Your task to perform on an android device: Turn off the flashlight Image 0: 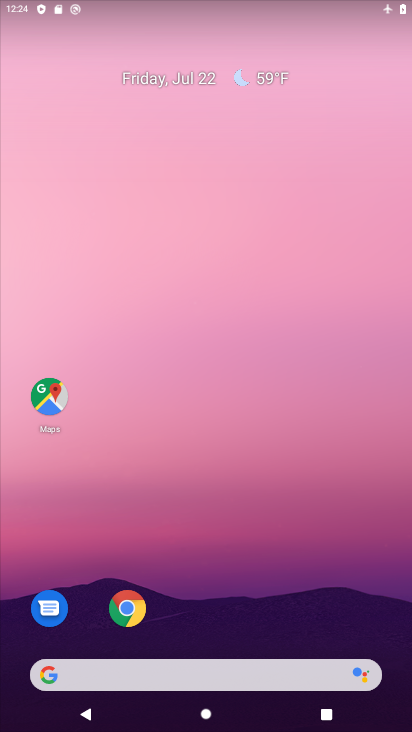
Step 0: drag from (203, 316) to (207, 137)
Your task to perform on an android device: Turn off the flashlight Image 1: 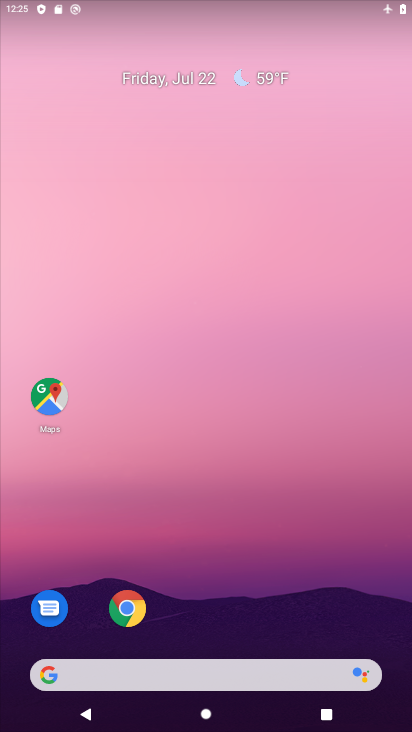
Step 1: drag from (236, 633) to (226, 15)
Your task to perform on an android device: Turn off the flashlight Image 2: 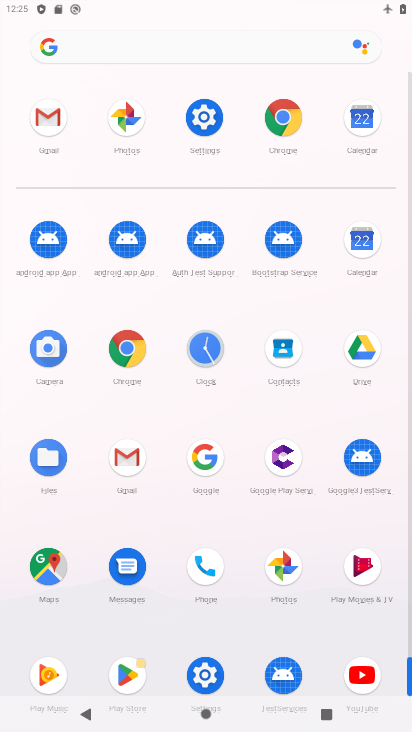
Step 2: click (204, 138)
Your task to perform on an android device: Turn off the flashlight Image 3: 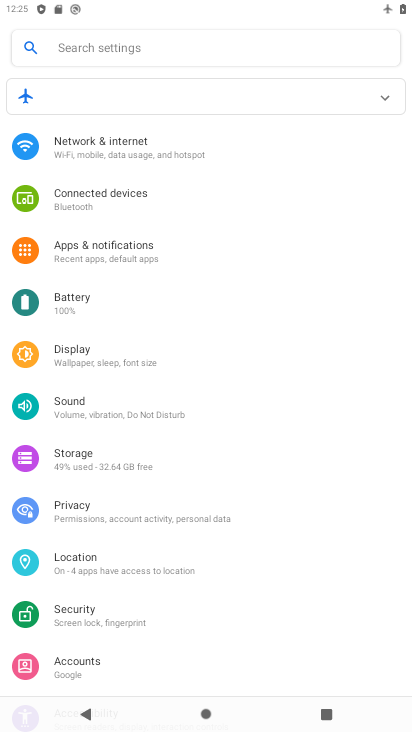
Step 3: click (192, 52)
Your task to perform on an android device: Turn off the flashlight Image 4: 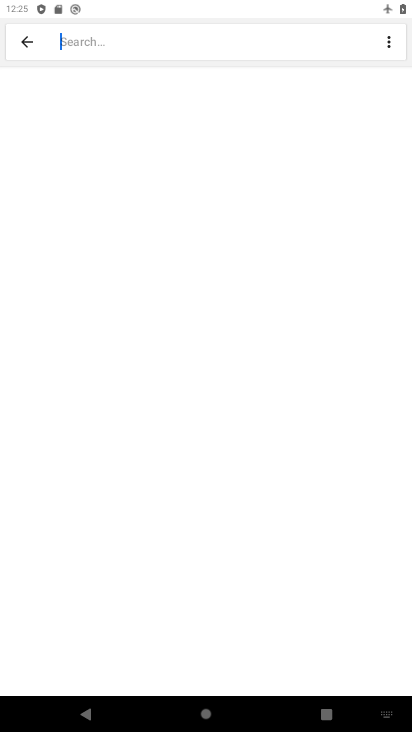
Step 4: type "flashlight"
Your task to perform on an android device: Turn off the flashlight Image 5: 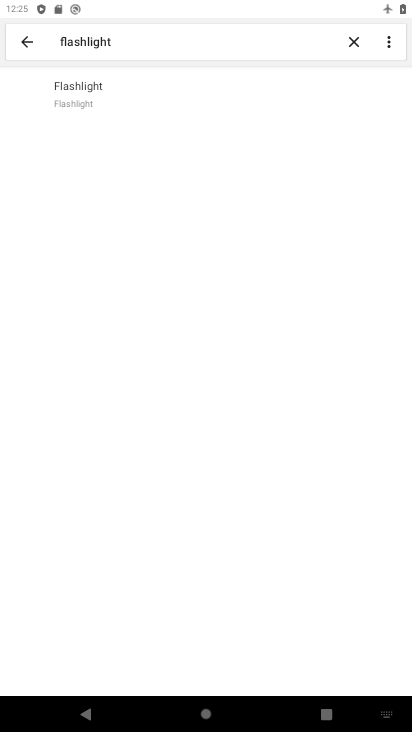
Step 5: click (85, 80)
Your task to perform on an android device: Turn off the flashlight Image 6: 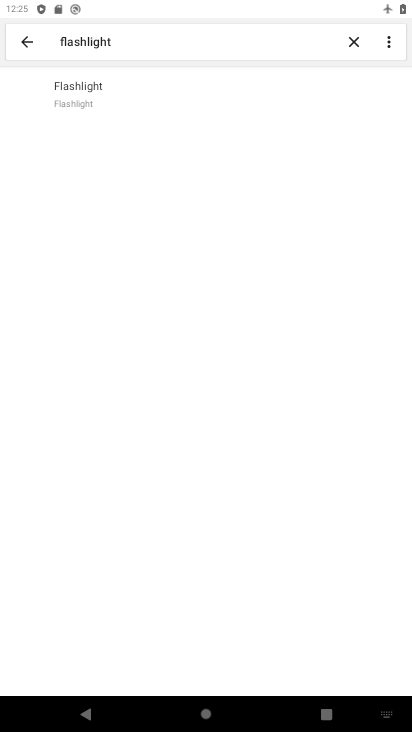
Step 6: click (98, 86)
Your task to perform on an android device: Turn off the flashlight Image 7: 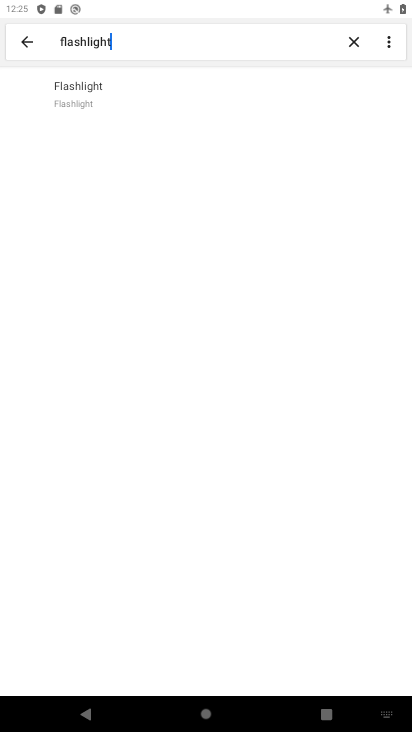
Step 7: task complete